Your task to perform on an android device: Is it going to rain today? Image 0: 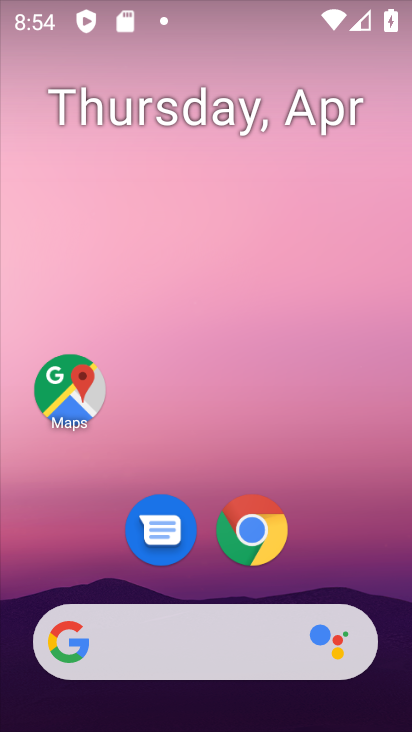
Step 0: click (199, 657)
Your task to perform on an android device: Is it going to rain today? Image 1: 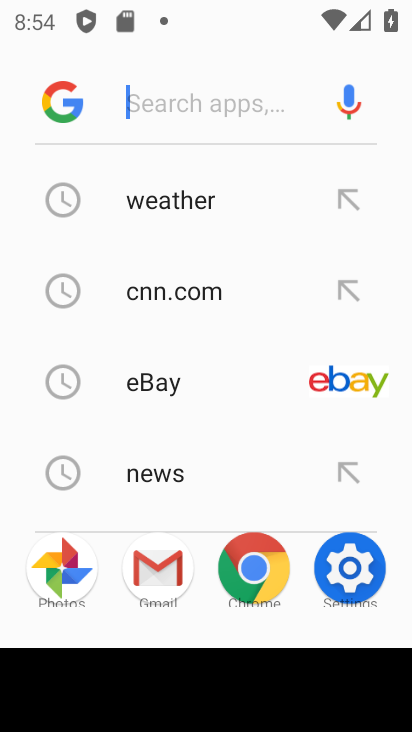
Step 1: click (182, 224)
Your task to perform on an android device: Is it going to rain today? Image 2: 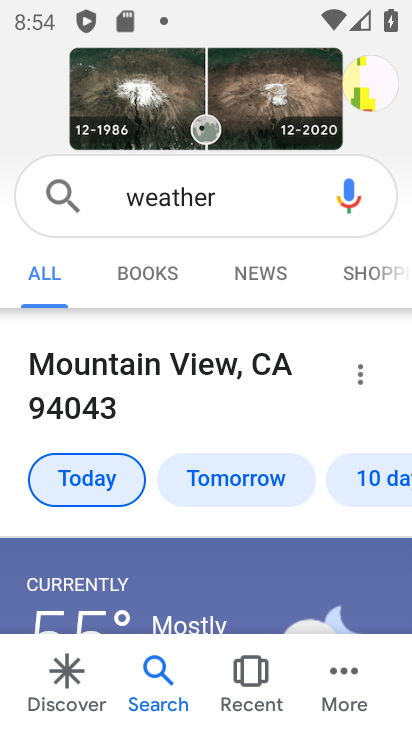
Step 2: task complete